Your task to perform on an android device: empty trash in the gmail app Image 0: 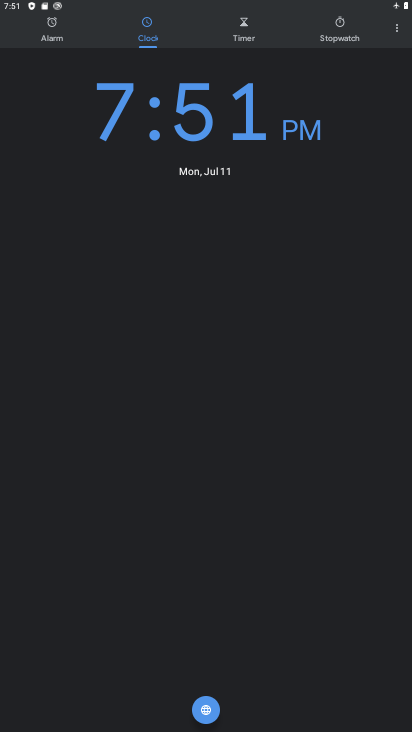
Step 0: press home button
Your task to perform on an android device: empty trash in the gmail app Image 1: 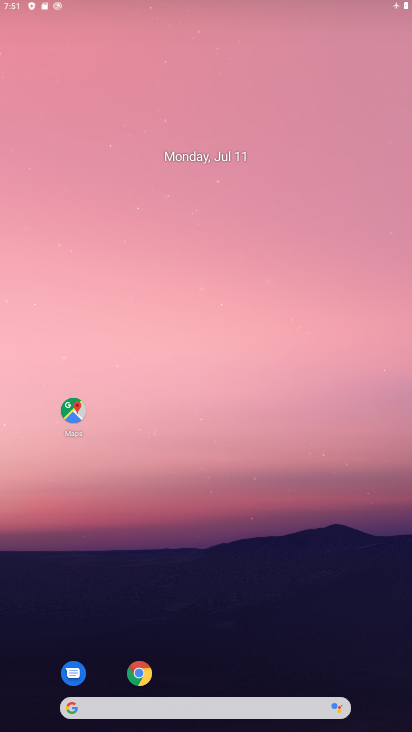
Step 1: drag from (192, 702) to (165, 336)
Your task to perform on an android device: empty trash in the gmail app Image 2: 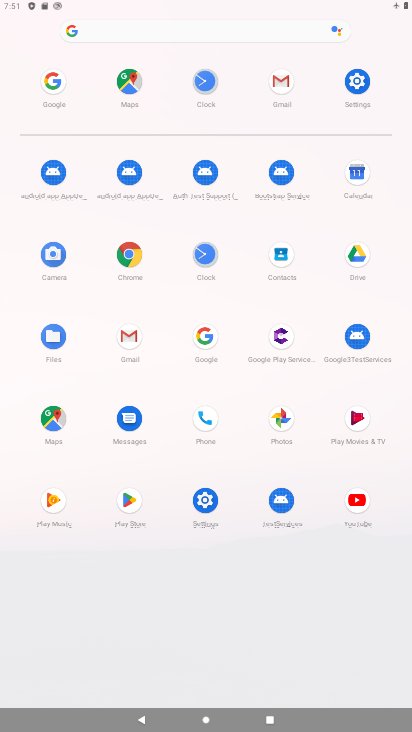
Step 2: click (137, 338)
Your task to perform on an android device: empty trash in the gmail app Image 3: 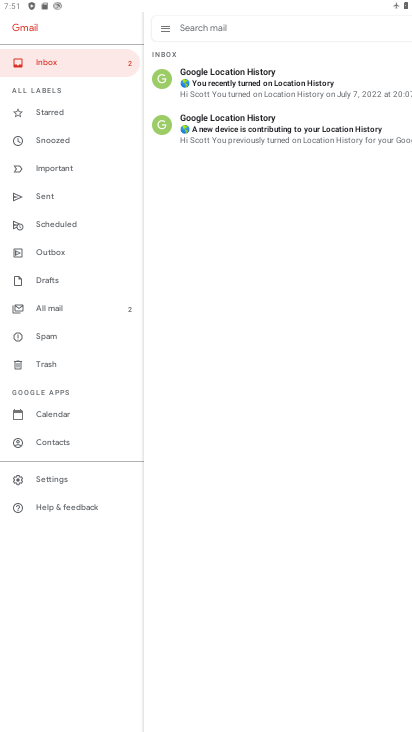
Step 3: click (52, 364)
Your task to perform on an android device: empty trash in the gmail app Image 4: 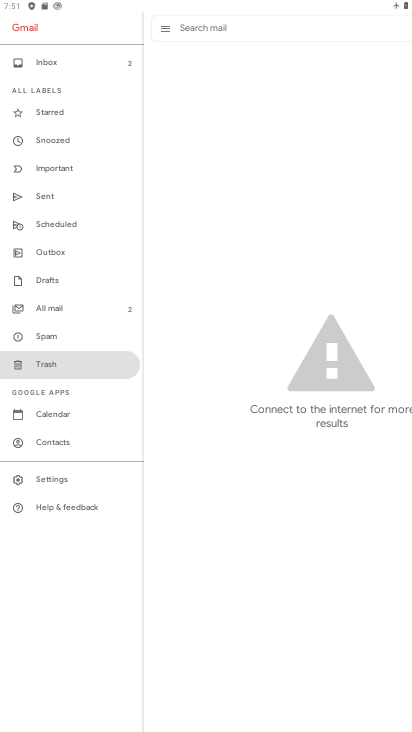
Step 4: task complete